Your task to perform on an android device: check out phone information Image 0: 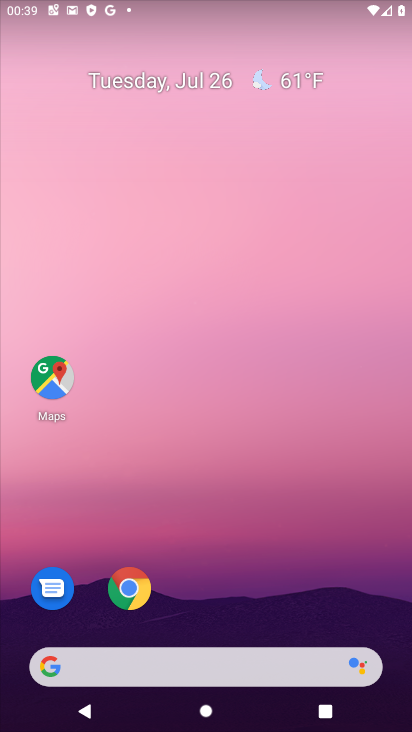
Step 0: press home button
Your task to perform on an android device: check out phone information Image 1: 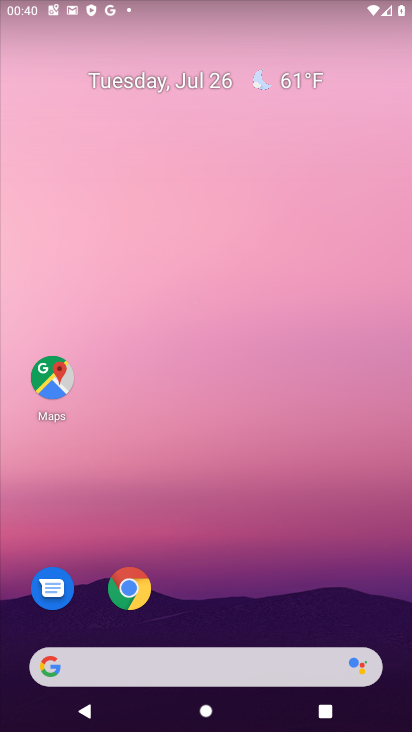
Step 1: drag from (240, 625) to (263, 1)
Your task to perform on an android device: check out phone information Image 2: 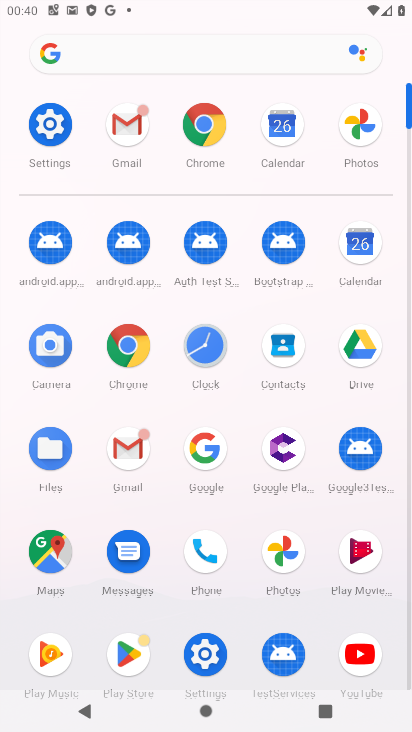
Step 2: click (53, 119)
Your task to perform on an android device: check out phone information Image 3: 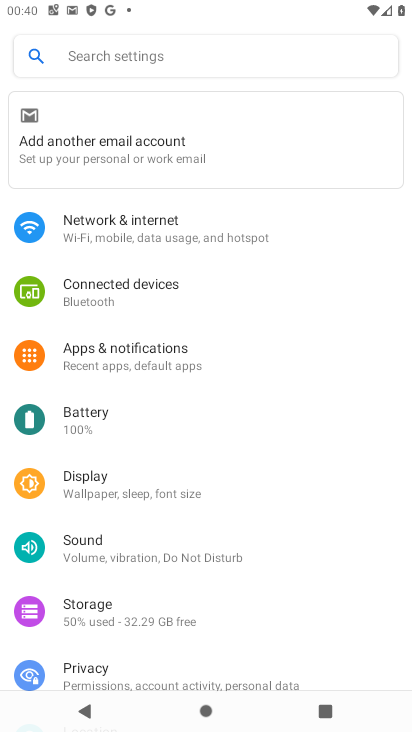
Step 3: drag from (156, 652) to (153, 146)
Your task to perform on an android device: check out phone information Image 4: 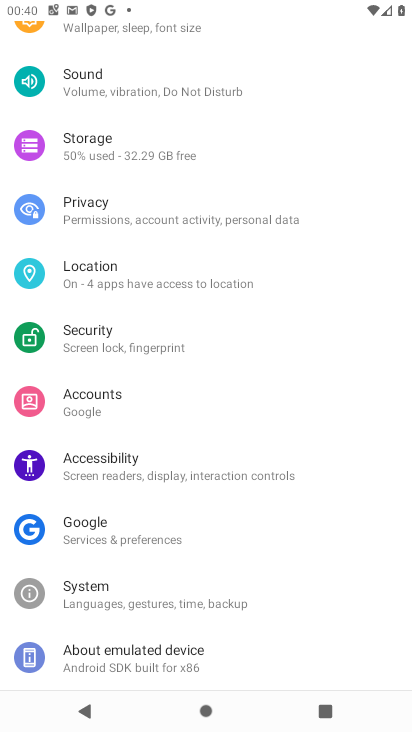
Step 4: click (230, 646)
Your task to perform on an android device: check out phone information Image 5: 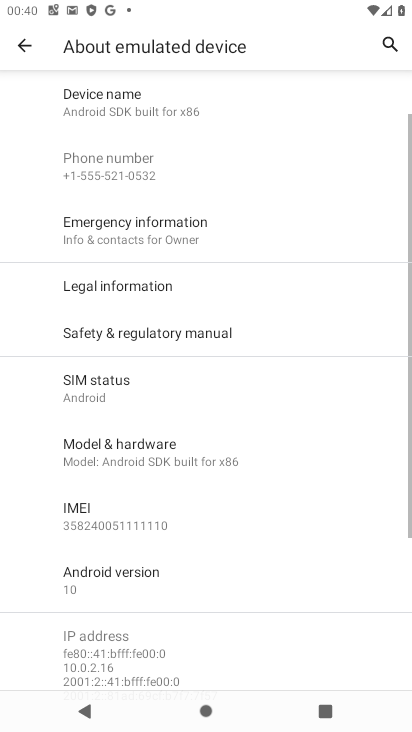
Step 5: task complete